Your task to perform on an android device: set the timer Image 0: 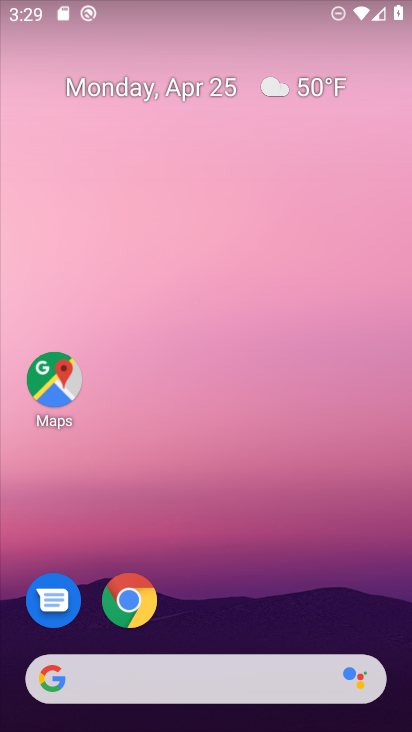
Step 0: drag from (215, 625) to (276, 41)
Your task to perform on an android device: set the timer Image 1: 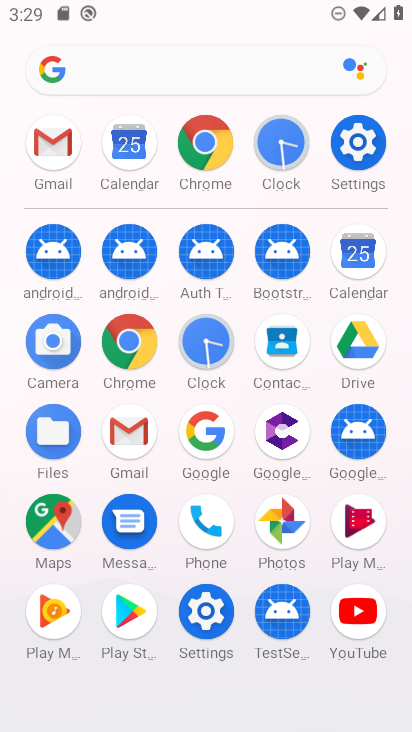
Step 1: click (200, 348)
Your task to perform on an android device: set the timer Image 2: 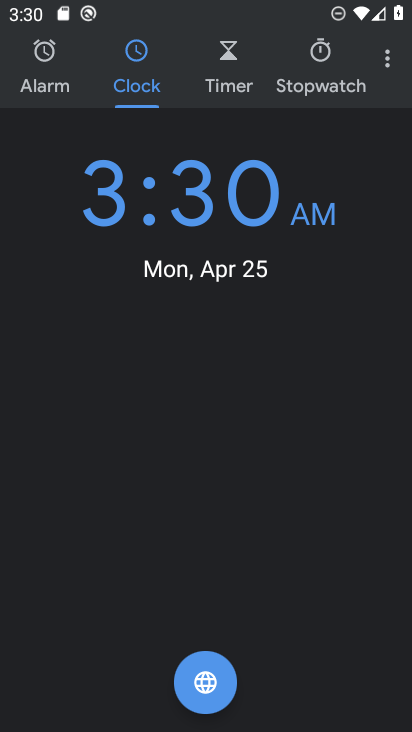
Step 2: click (216, 85)
Your task to perform on an android device: set the timer Image 3: 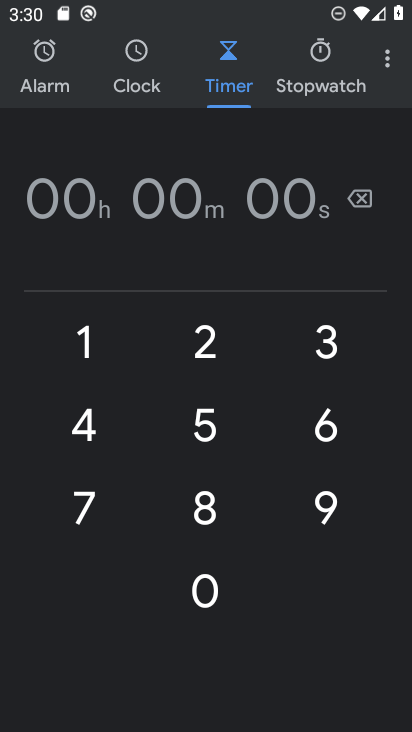
Step 3: click (191, 325)
Your task to perform on an android device: set the timer Image 4: 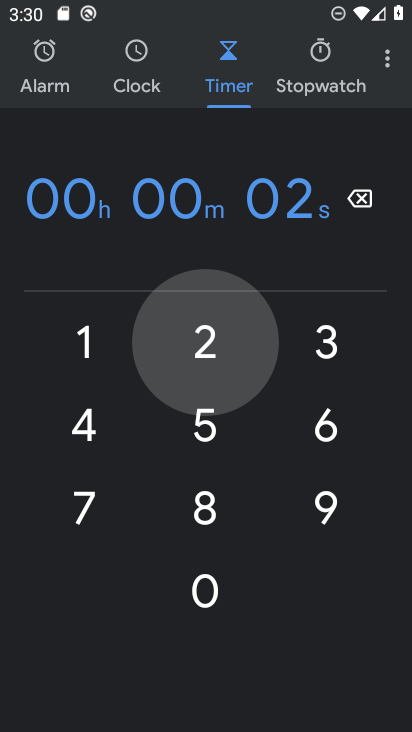
Step 4: click (206, 431)
Your task to perform on an android device: set the timer Image 5: 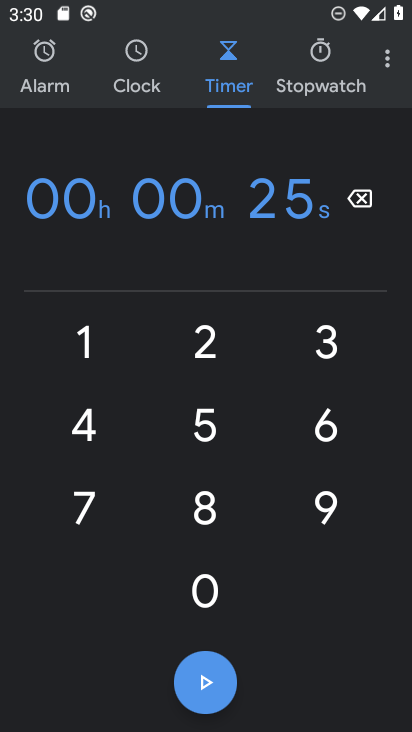
Step 5: click (200, 664)
Your task to perform on an android device: set the timer Image 6: 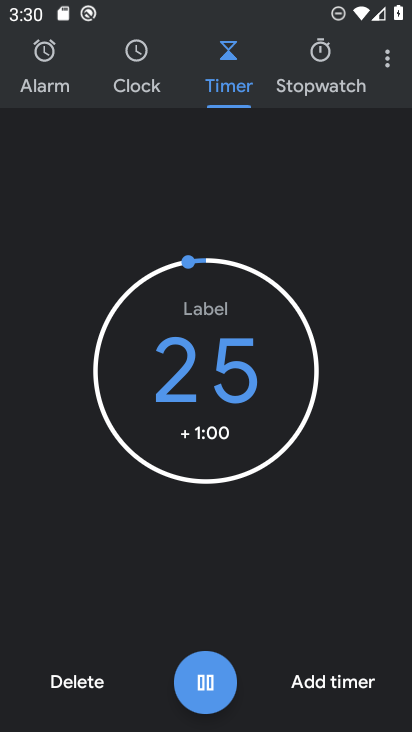
Step 6: click (202, 663)
Your task to perform on an android device: set the timer Image 7: 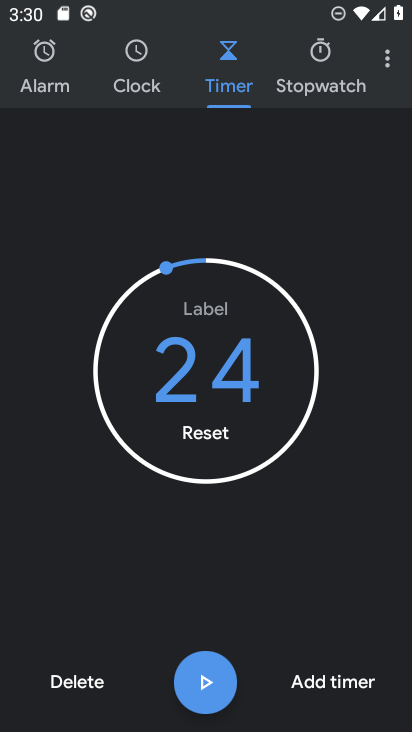
Step 7: task complete